Your task to perform on an android device: set default search engine in the chrome app Image 0: 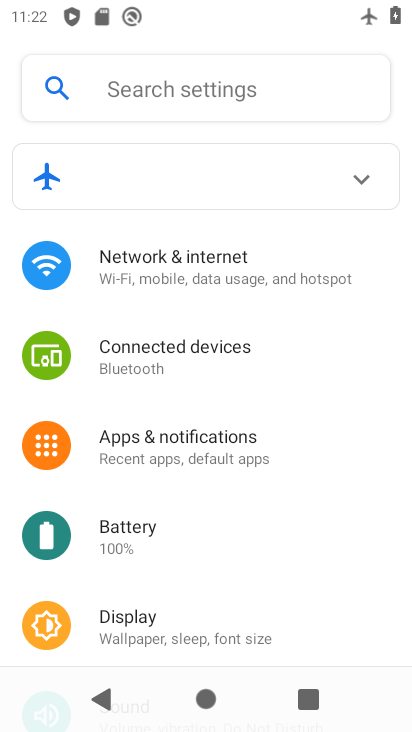
Step 0: press back button
Your task to perform on an android device: set default search engine in the chrome app Image 1: 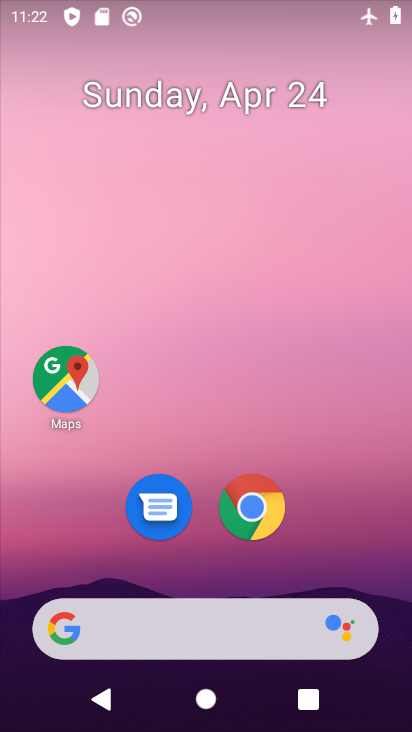
Step 1: drag from (335, 536) to (236, 14)
Your task to perform on an android device: set default search engine in the chrome app Image 2: 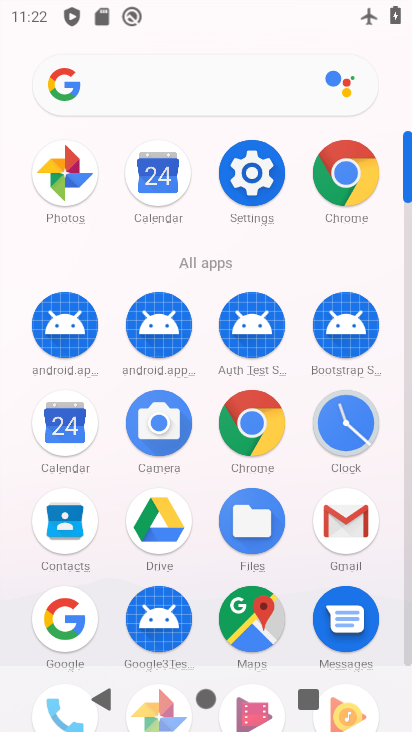
Step 2: drag from (17, 518) to (9, 278)
Your task to perform on an android device: set default search engine in the chrome app Image 3: 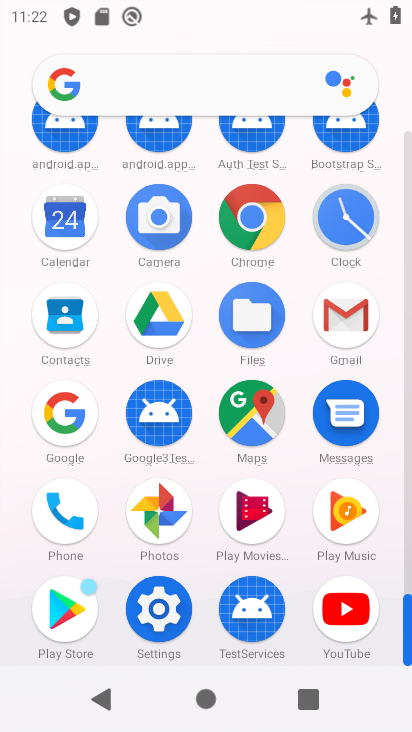
Step 3: click (255, 213)
Your task to perform on an android device: set default search engine in the chrome app Image 4: 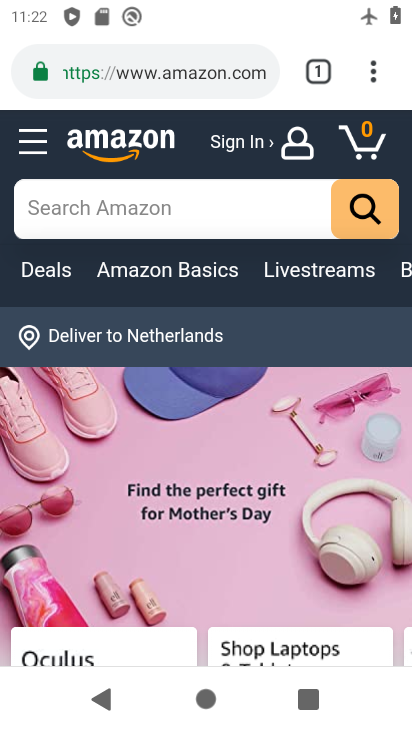
Step 4: drag from (373, 71) to (128, 503)
Your task to perform on an android device: set default search engine in the chrome app Image 5: 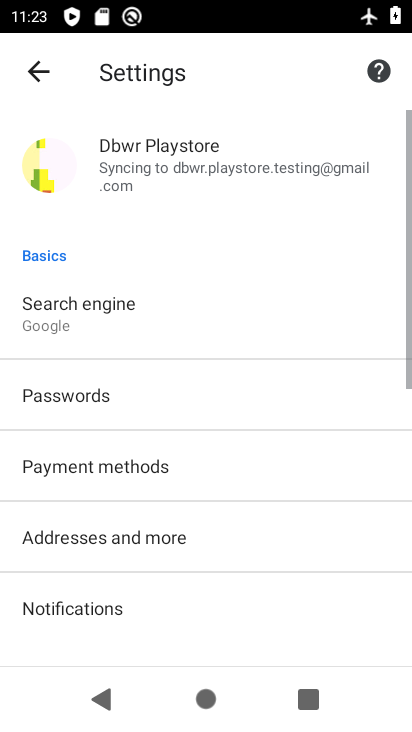
Step 5: click (99, 316)
Your task to perform on an android device: set default search engine in the chrome app Image 6: 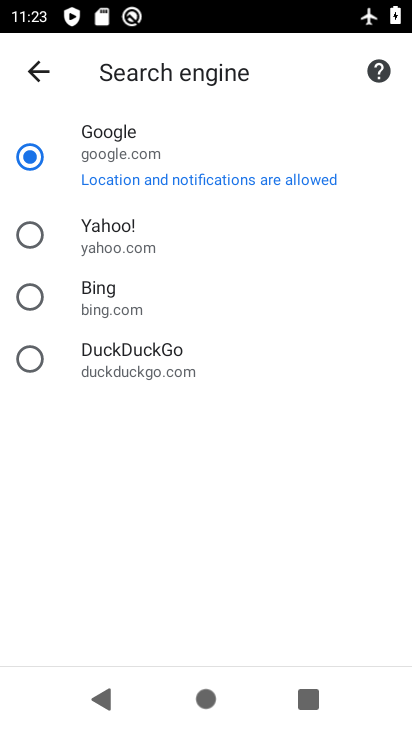
Step 6: click (130, 246)
Your task to perform on an android device: set default search engine in the chrome app Image 7: 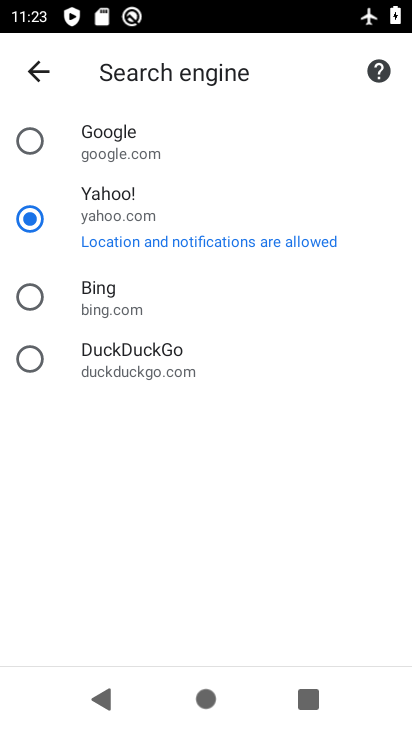
Step 7: task complete